Your task to perform on an android device: Open the stopwatch Image 0: 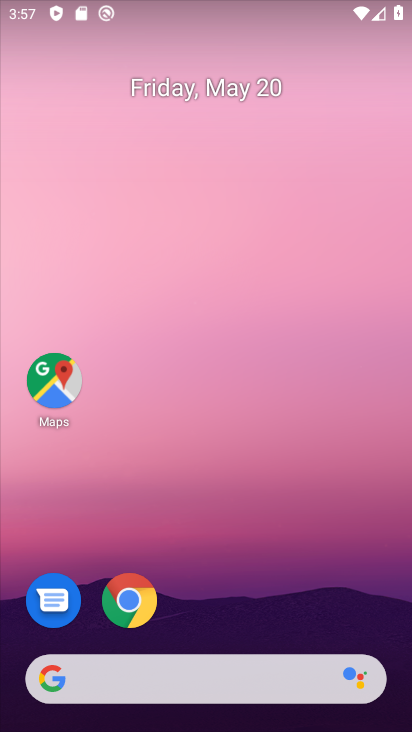
Step 0: drag from (239, 599) to (360, 114)
Your task to perform on an android device: Open the stopwatch Image 1: 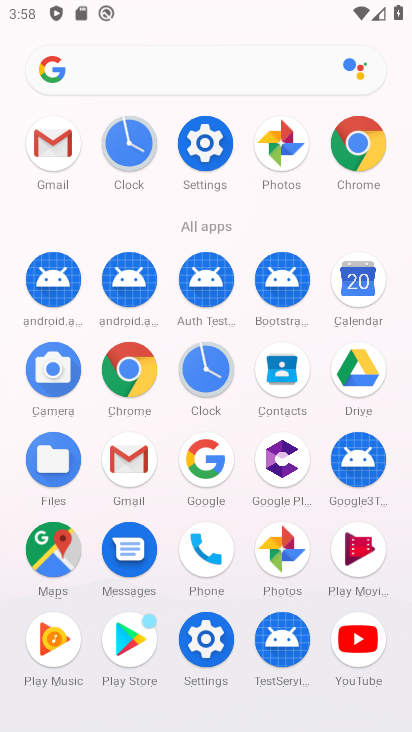
Step 1: click (218, 377)
Your task to perform on an android device: Open the stopwatch Image 2: 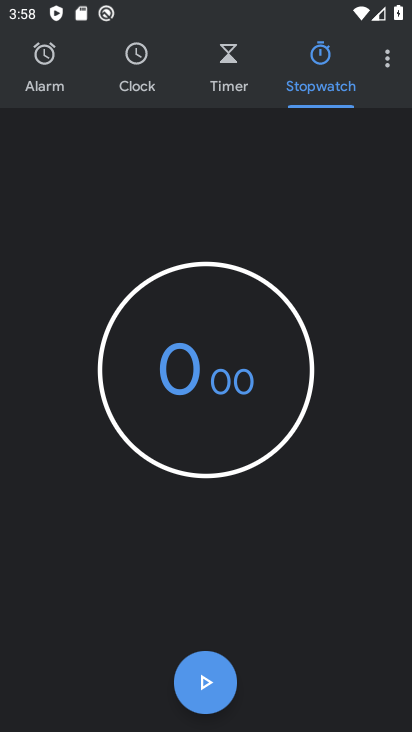
Step 2: task complete